Your task to perform on an android device: see tabs open on other devices in the chrome app Image 0: 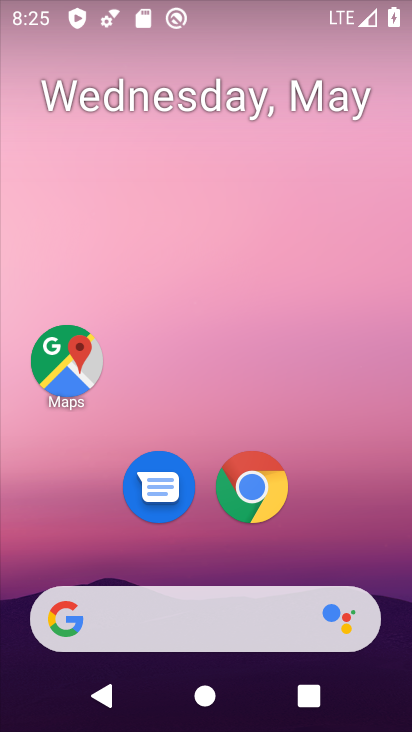
Step 0: click (265, 494)
Your task to perform on an android device: see tabs open on other devices in the chrome app Image 1: 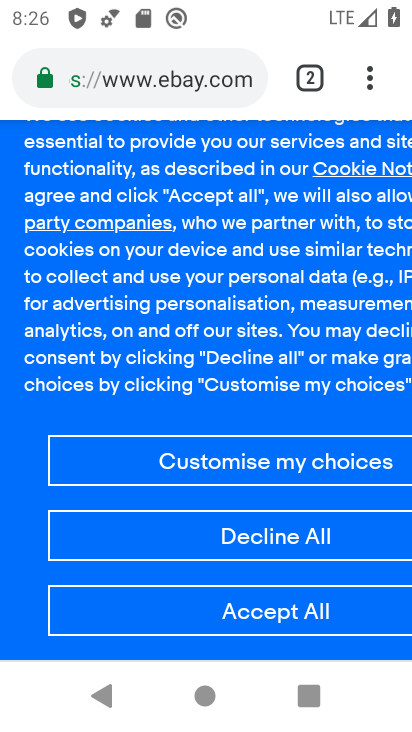
Step 1: click (368, 83)
Your task to perform on an android device: see tabs open on other devices in the chrome app Image 2: 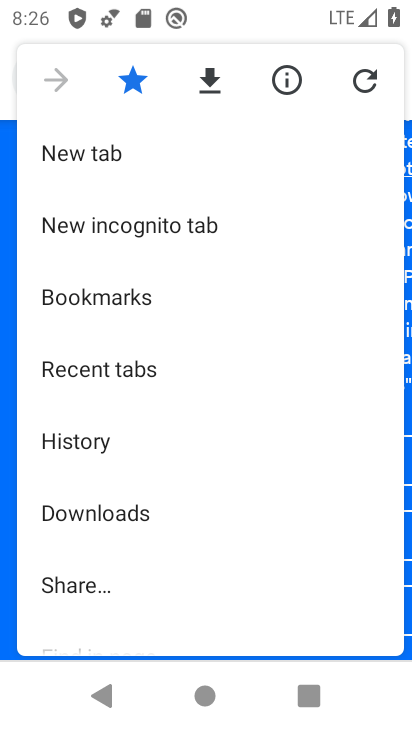
Step 2: click (92, 378)
Your task to perform on an android device: see tabs open on other devices in the chrome app Image 3: 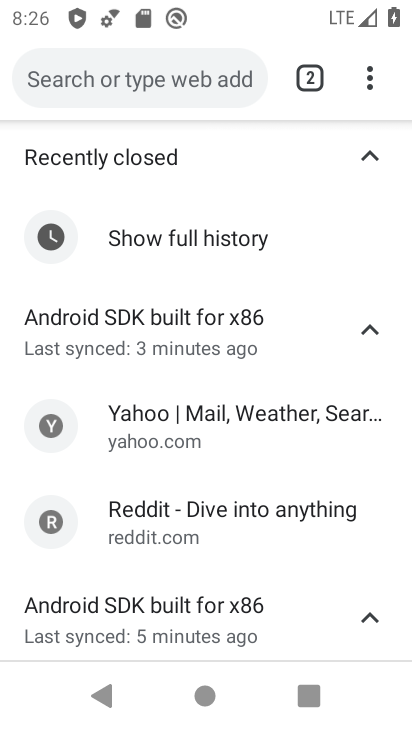
Step 3: task complete